Your task to perform on an android device: Open ESPN.com Image 0: 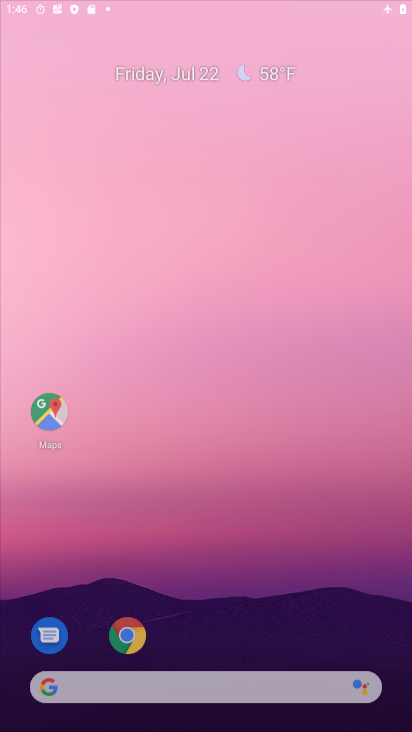
Step 0: click (343, 118)
Your task to perform on an android device: Open ESPN.com Image 1: 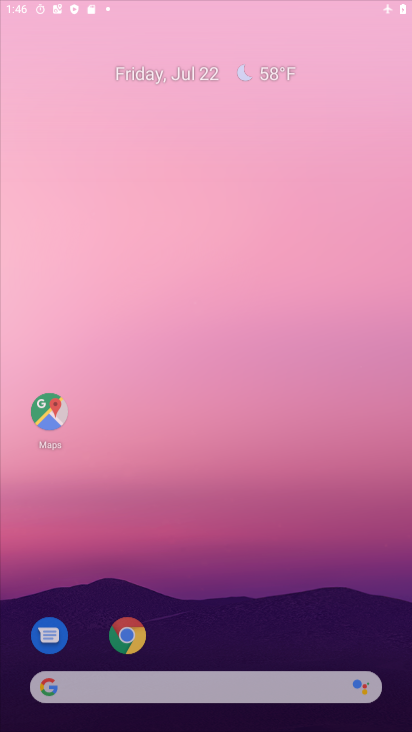
Step 1: press home button
Your task to perform on an android device: Open ESPN.com Image 2: 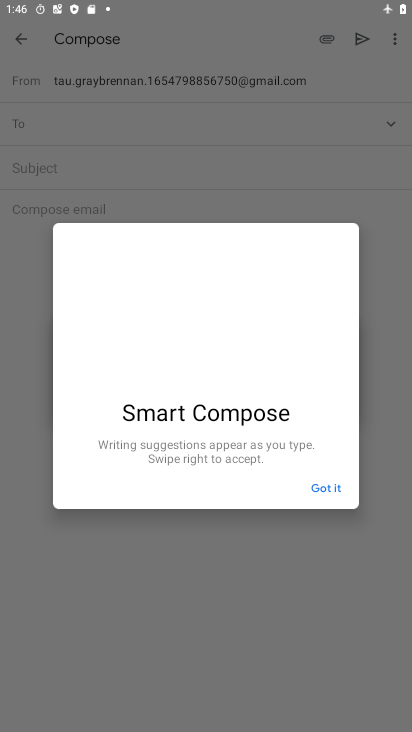
Step 2: press home button
Your task to perform on an android device: Open ESPN.com Image 3: 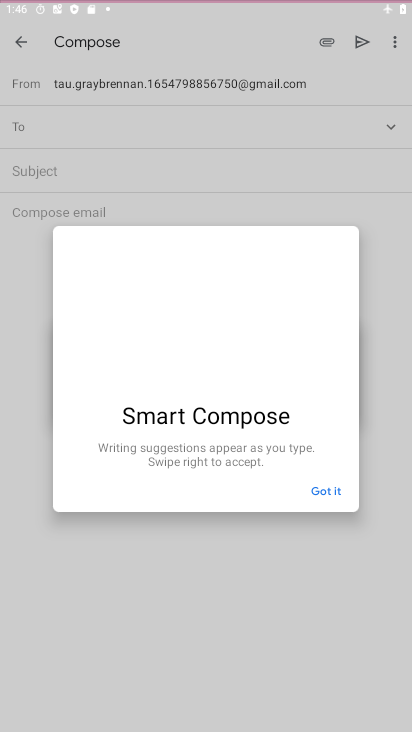
Step 3: click (315, 81)
Your task to perform on an android device: Open ESPN.com Image 4: 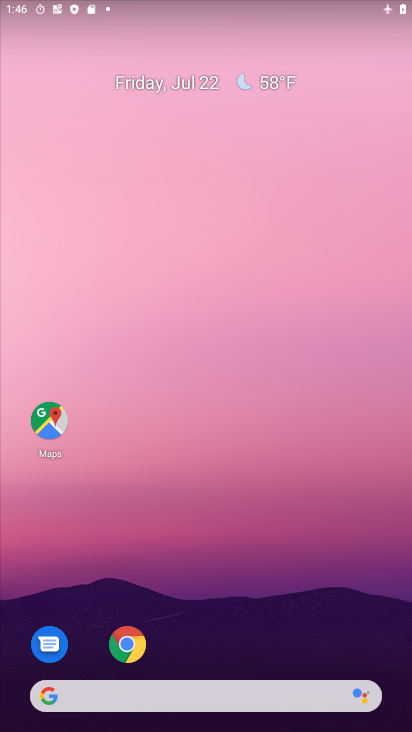
Step 4: drag from (194, 350) to (194, 2)
Your task to perform on an android device: Open ESPN.com Image 5: 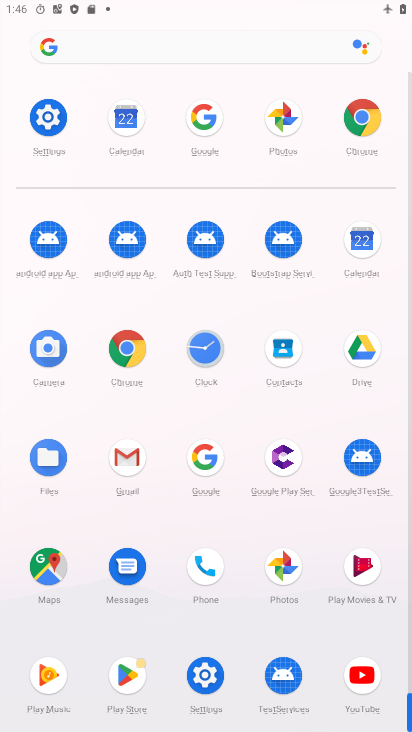
Step 5: click (123, 47)
Your task to perform on an android device: Open ESPN.com Image 6: 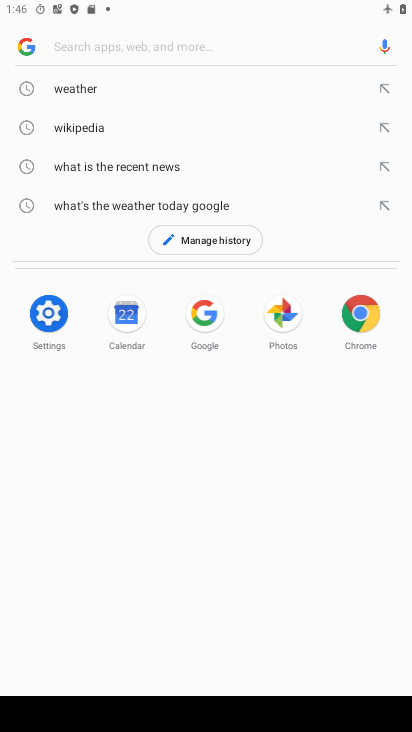
Step 6: type "espn.com"
Your task to perform on an android device: Open ESPN.com Image 7: 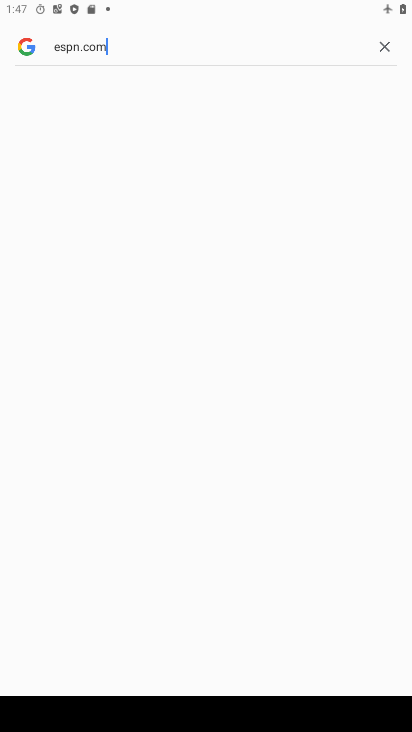
Step 7: click (205, 235)
Your task to perform on an android device: Open ESPN.com Image 8: 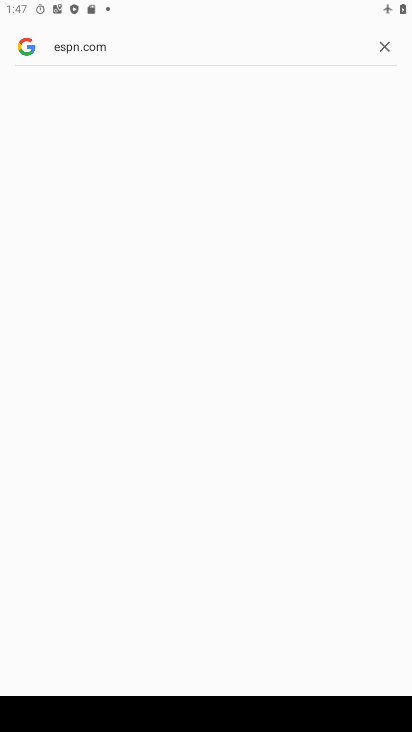
Step 8: task complete